Your task to perform on an android device: turn on the 24-hour format for clock Image 0: 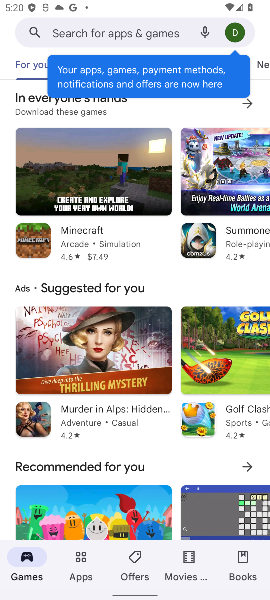
Step 0: press home button
Your task to perform on an android device: turn on the 24-hour format for clock Image 1: 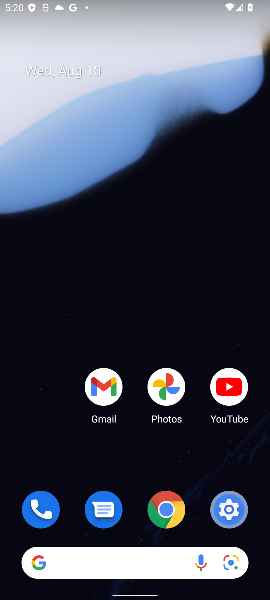
Step 1: drag from (142, 463) to (225, 0)
Your task to perform on an android device: turn on the 24-hour format for clock Image 2: 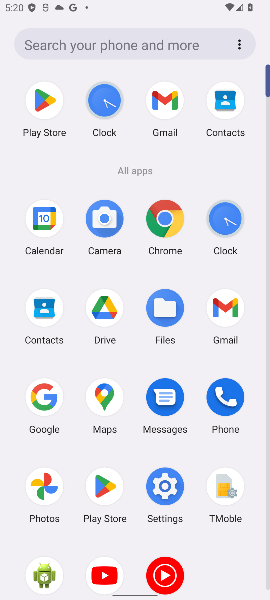
Step 2: click (221, 221)
Your task to perform on an android device: turn on the 24-hour format for clock Image 3: 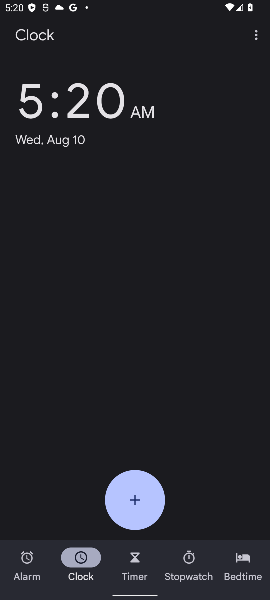
Step 3: click (260, 27)
Your task to perform on an android device: turn on the 24-hour format for clock Image 4: 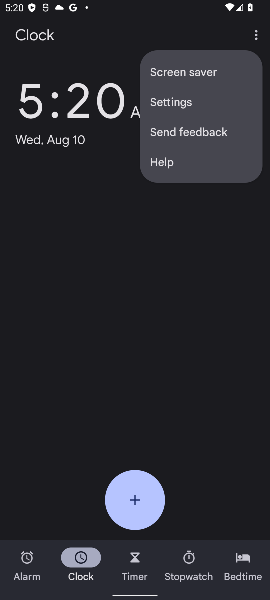
Step 4: click (183, 108)
Your task to perform on an android device: turn on the 24-hour format for clock Image 5: 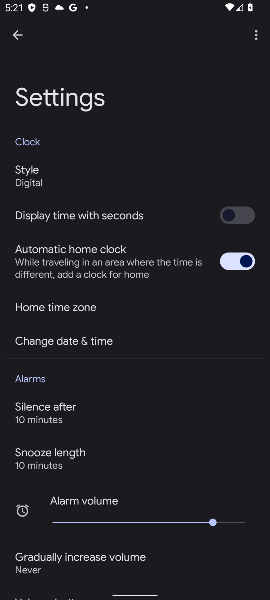
Step 5: drag from (140, 475) to (183, 344)
Your task to perform on an android device: turn on the 24-hour format for clock Image 6: 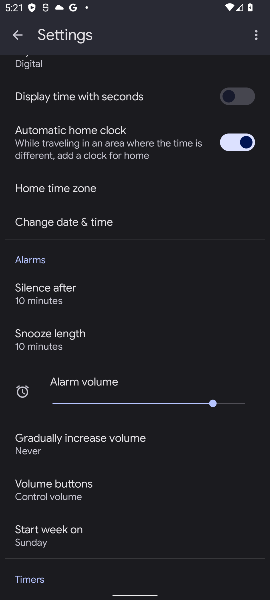
Step 6: click (108, 221)
Your task to perform on an android device: turn on the 24-hour format for clock Image 7: 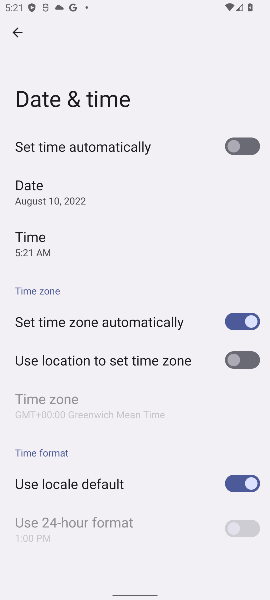
Step 7: click (235, 475)
Your task to perform on an android device: turn on the 24-hour format for clock Image 8: 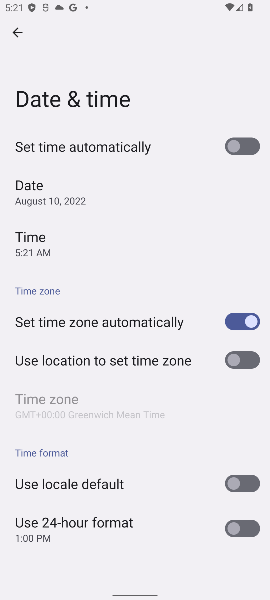
Step 8: click (245, 528)
Your task to perform on an android device: turn on the 24-hour format for clock Image 9: 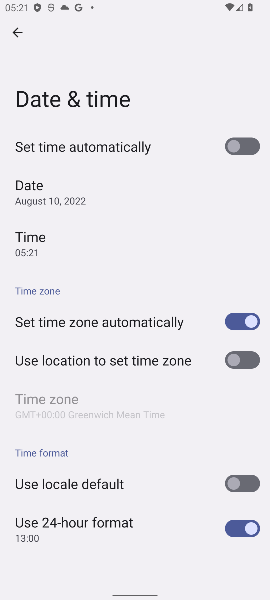
Step 9: task complete